Your task to perform on an android device: turn off notifications settings in the gmail app Image 0: 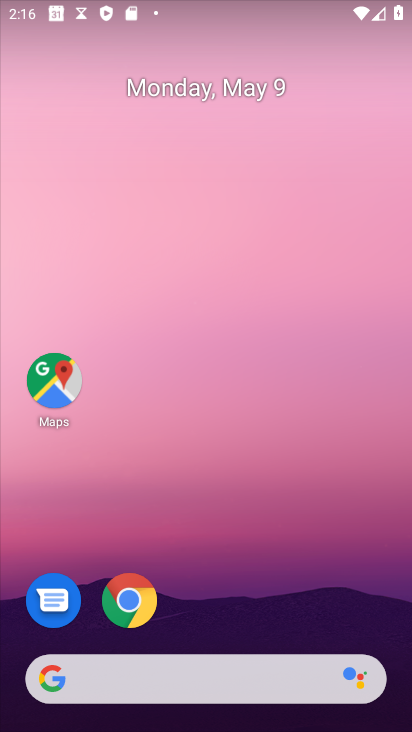
Step 0: drag from (259, 551) to (241, 51)
Your task to perform on an android device: turn off notifications settings in the gmail app Image 1: 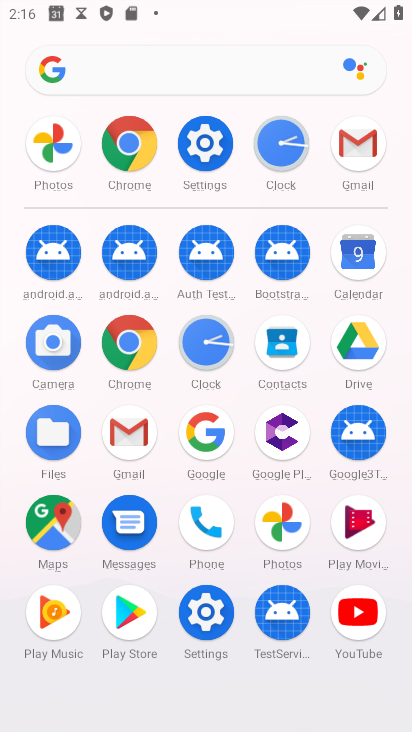
Step 1: drag from (0, 502) to (2, 207)
Your task to perform on an android device: turn off notifications settings in the gmail app Image 2: 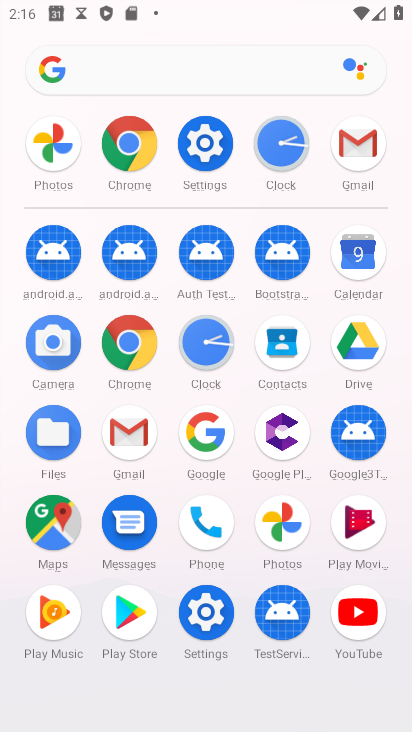
Step 2: drag from (5, 530) to (27, 231)
Your task to perform on an android device: turn off notifications settings in the gmail app Image 3: 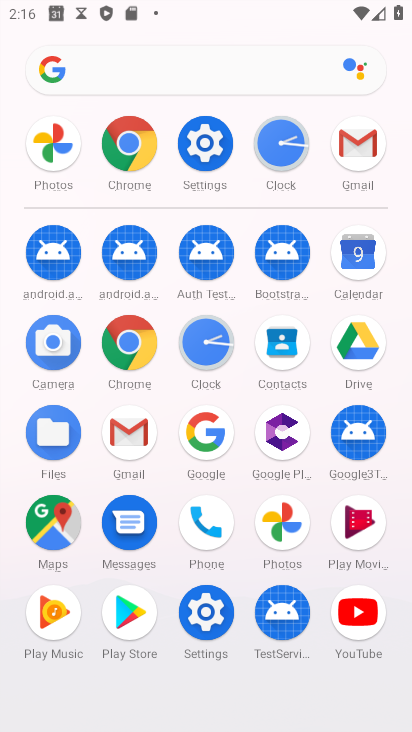
Step 3: drag from (4, 537) to (9, 277)
Your task to perform on an android device: turn off notifications settings in the gmail app Image 4: 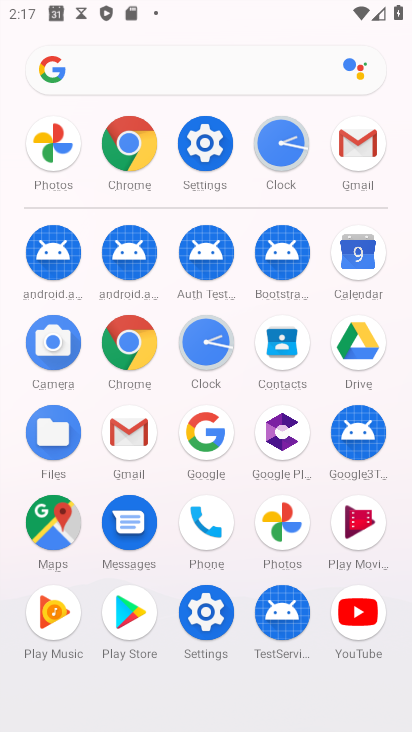
Step 4: click (131, 425)
Your task to perform on an android device: turn off notifications settings in the gmail app Image 5: 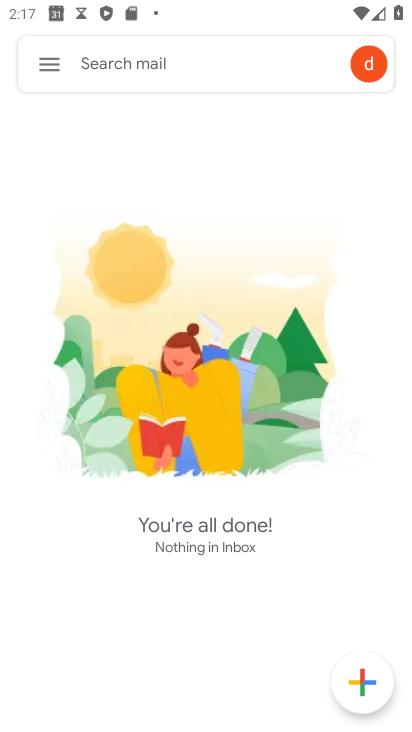
Step 5: click (38, 68)
Your task to perform on an android device: turn off notifications settings in the gmail app Image 6: 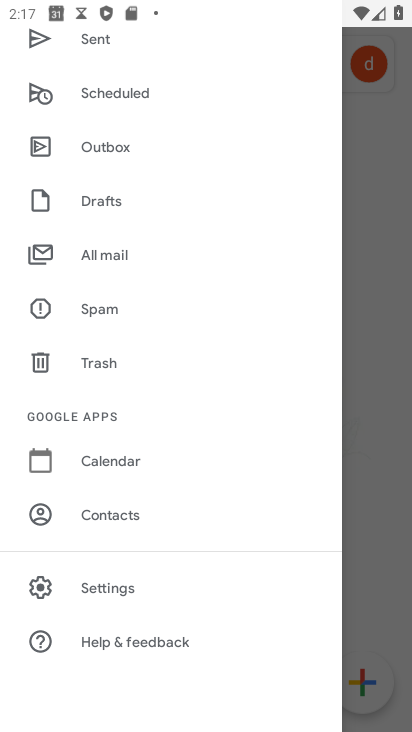
Step 6: click (128, 583)
Your task to perform on an android device: turn off notifications settings in the gmail app Image 7: 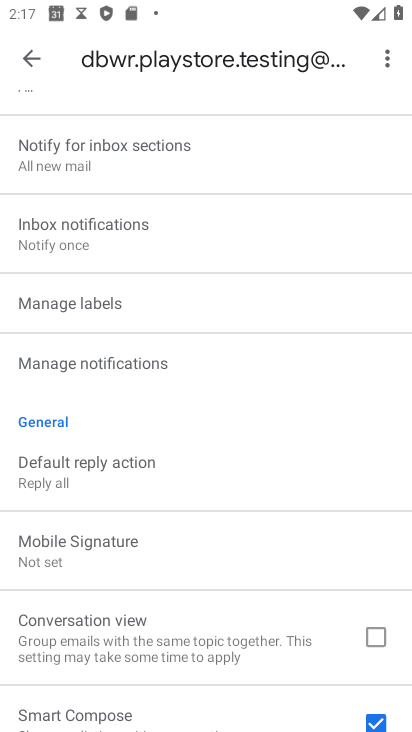
Step 7: drag from (197, 610) to (248, 125)
Your task to perform on an android device: turn off notifications settings in the gmail app Image 8: 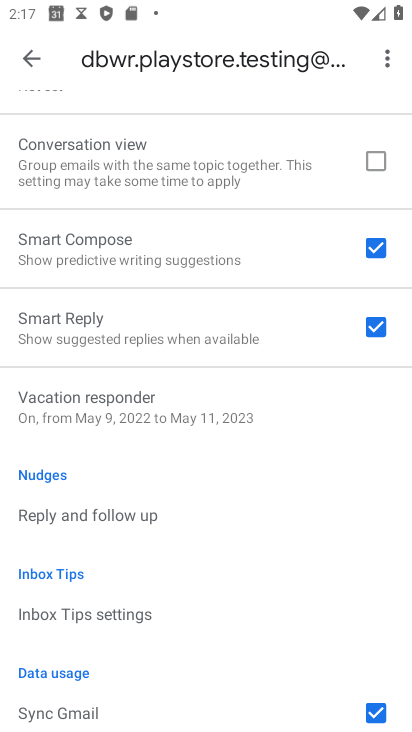
Step 8: drag from (188, 588) to (217, 106)
Your task to perform on an android device: turn off notifications settings in the gmail app Image 9: 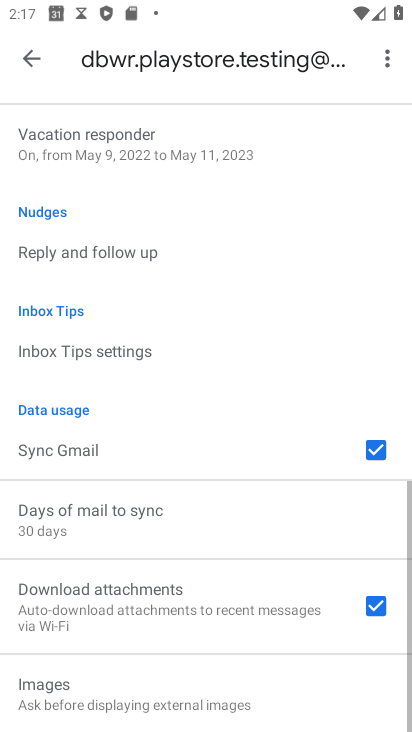
Step 9: drag from (227, 151) to (216, 627)
Your task to perform on an android device: turn off notifications settings in the gmail app Image 10: 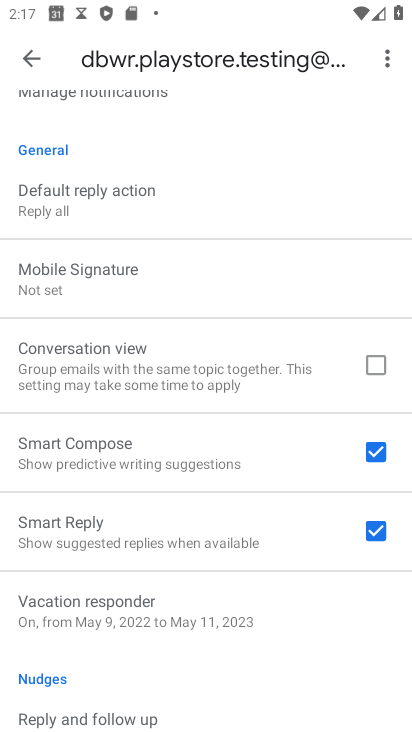
Step 10: drag from (115, 130) to (134, 364)
Your task to perform on an android device: turn off notifications settings in the gmail app Image 11: 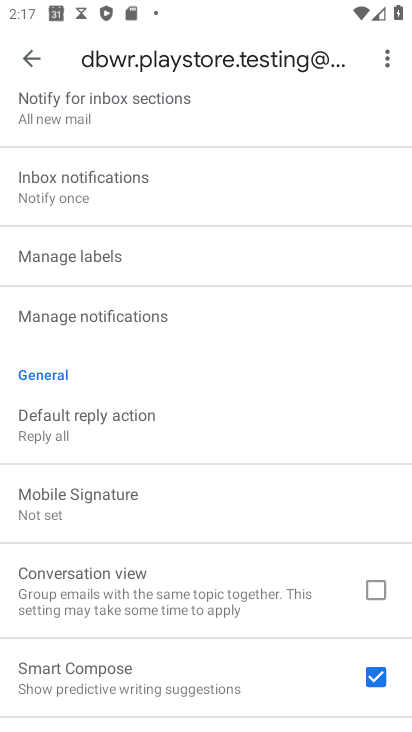
Step 11: click (103, 314)
Your task to perform on an android device: turn off notifications settings in the gmail app Image 12: 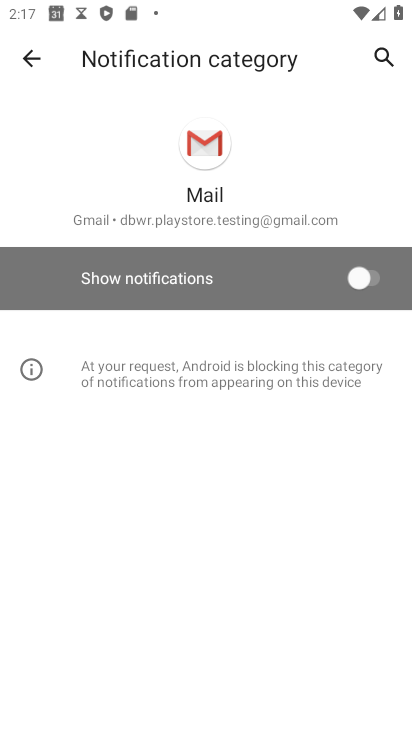
Step 12: task complete